Your task to perform on an android device: turn smart compose on in the gmail app Image 0: 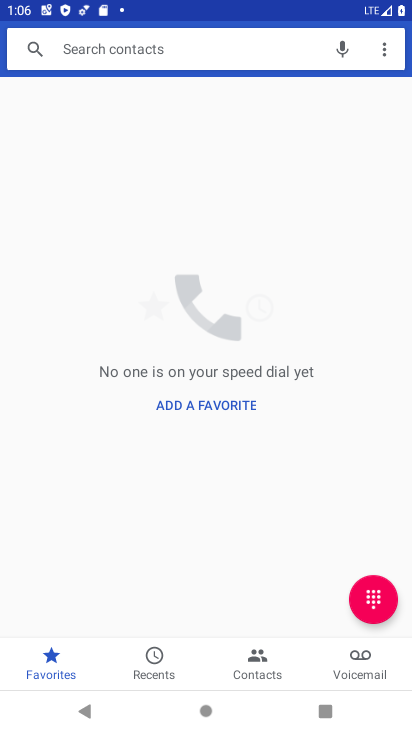
Step 0: press home button
Your task to perform on an android device: turn smart compose on in the gmail app Image 1: 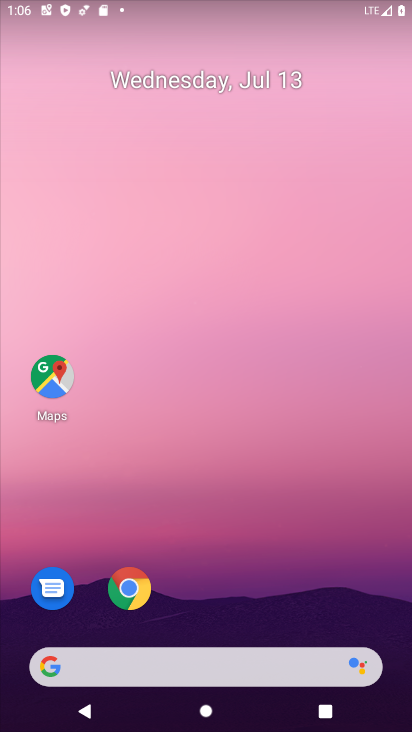
Step 1: drag from (384, 614) to (323, 156)
Your task to perform on an android device: turn smart compose on in the gmail app Image 2: 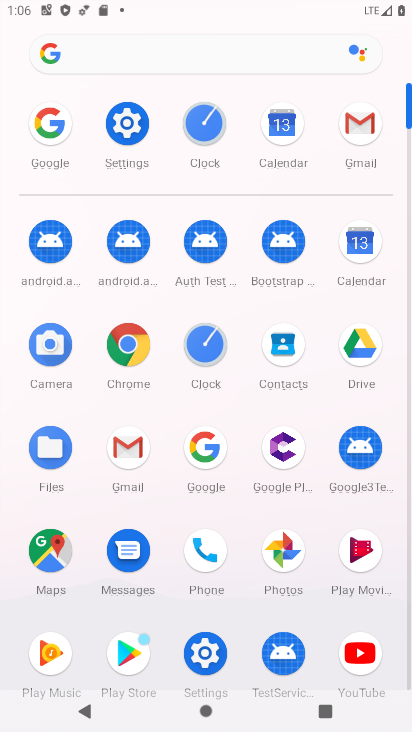
Step 2: click (135, 442)
Your task to perform on an android device: turn smart compose on in the gmail app Image 3: 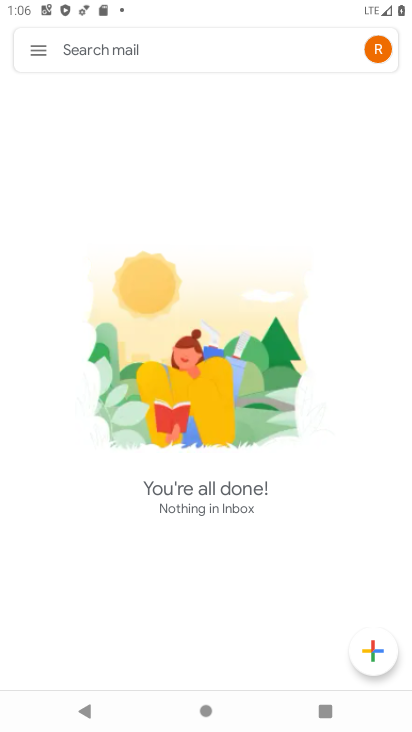
Step 3: click (34, 52)
Your task to perform on an android device: turn smart compose on in the gmail app Image 4: 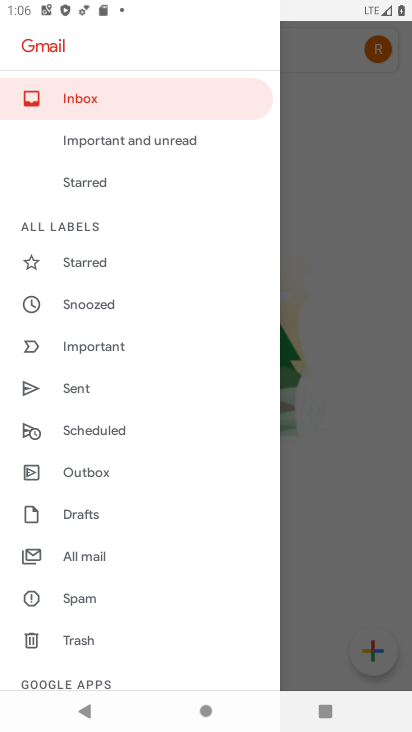
Step 4: drag from (186, 621) to (183, 252)
Your task to perform on an android device: turn smart compose on in the gmail app Image 5: 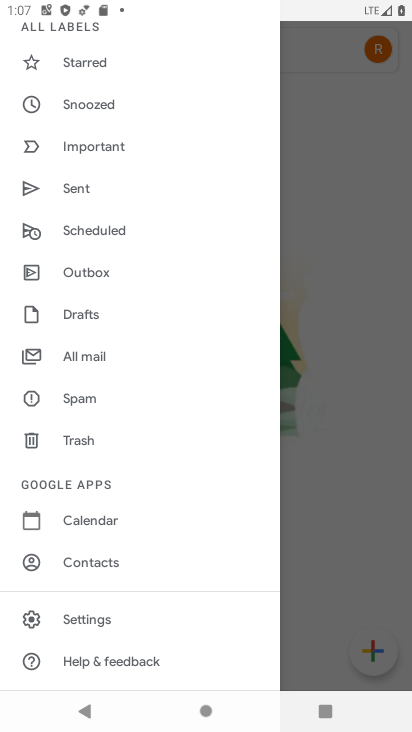
Step 5: click (85, 623)
Your task to perform on an android device: turn smart compose on in the gmail app Image 6: 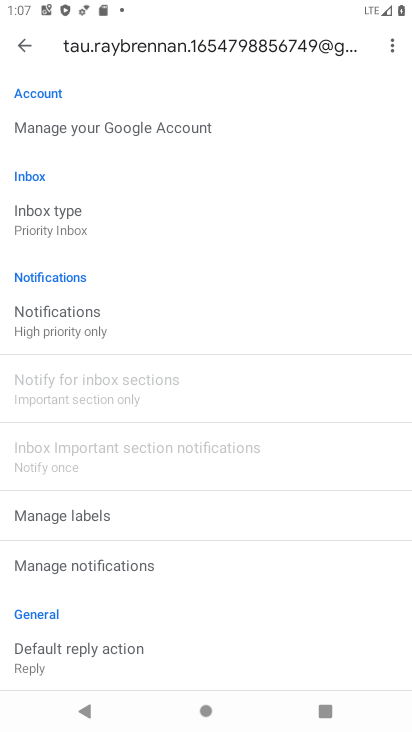
Step 6: task complete